Your task to perform on an android device: Open the calendar and show me this week's events? Image 0: 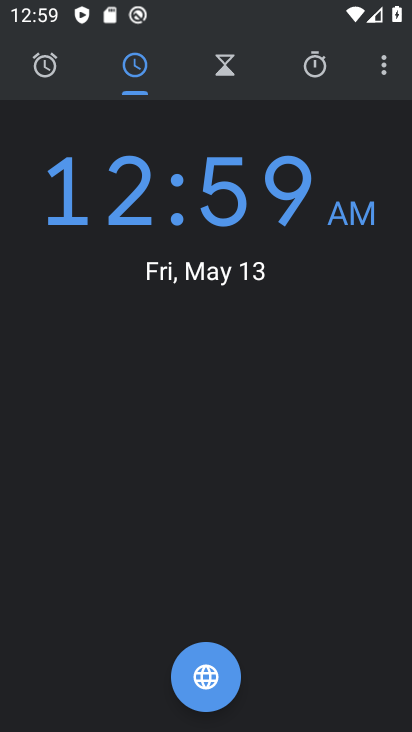
Step 0: press back button
Your task to perform on an android device: Open the calendar and show me this week's events? Image 1: 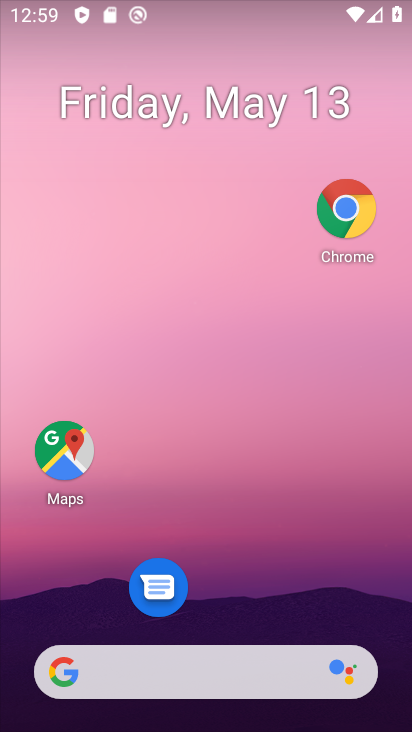
Step 1: drag from (224, 494) to (288, 60)
Your task to perform on an android device: Open the calendar and show me this week's events? Image 2: 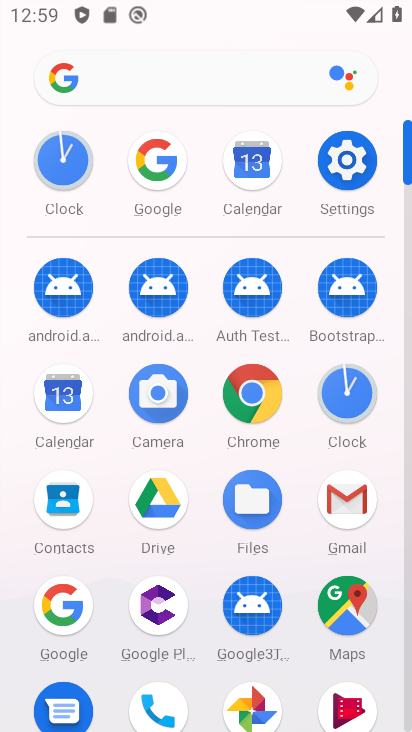
Step 2: click (56, 395)
Your task to perform on an android device: Open the calendar and show me this week's events? Image 3: 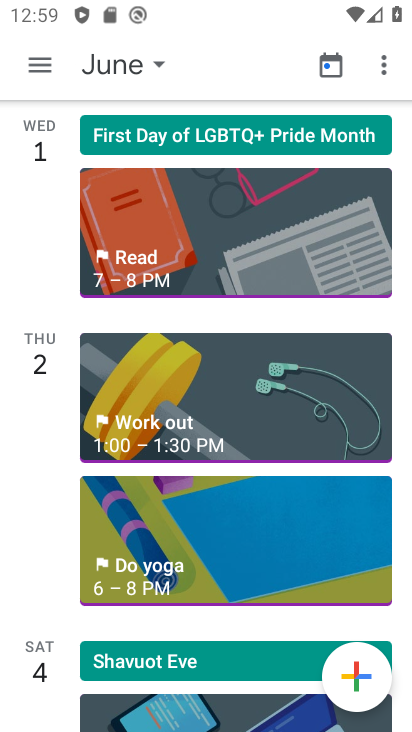
Step 3: click (138, 70)
Your task to perform on an android device: Open the calendar and show me this week's events? Image 4: 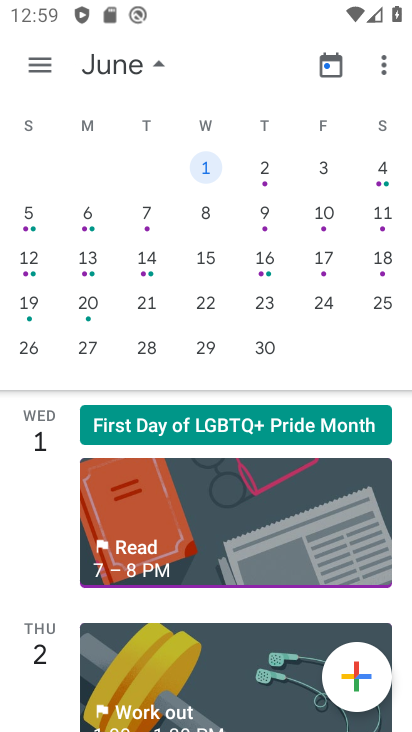
Step 4: drag from (30, 288) to (379, 275)
Your task to perform on an android device: Open the calendar and show me this week's events? Image 5: 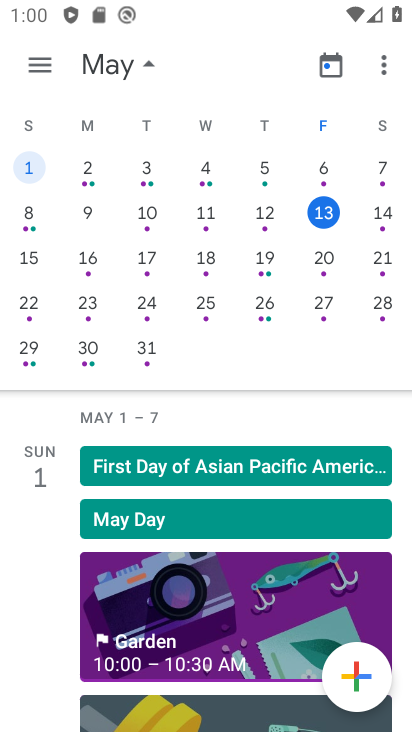
Step 5: drag from (192, 637) to (196, 562)
Your task to perform on an android device: Open the calendar and show me this week's events? Image 6: 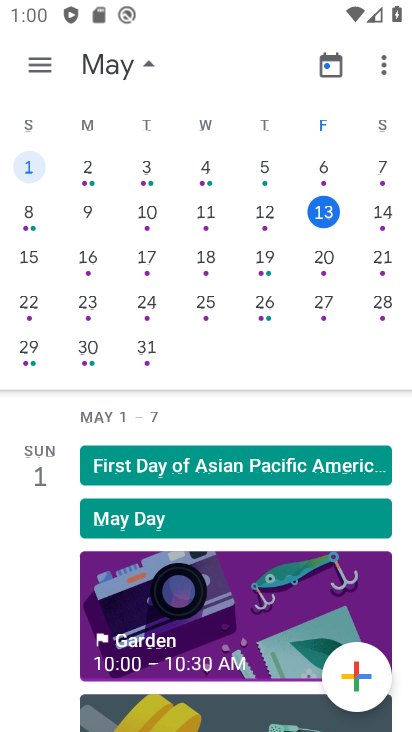
Step 6: click (317, 134)
Your task to perform on an android device: Open the calendar and show me this week's events? Image 7: 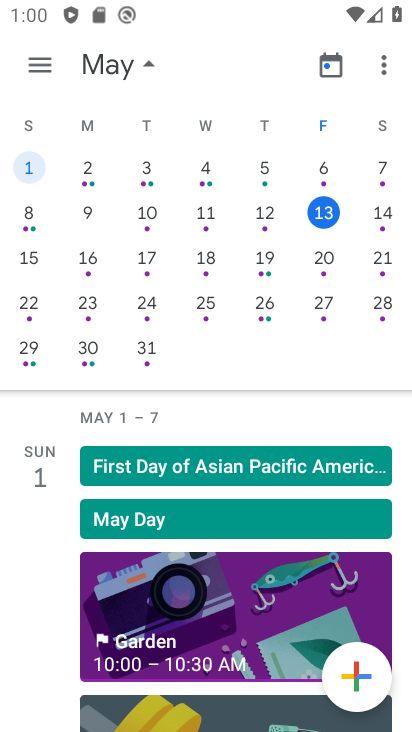
Step 7: click (321, 207)
Your task to perform on an android device: Open the calendar and show me this week's events? Image 8: 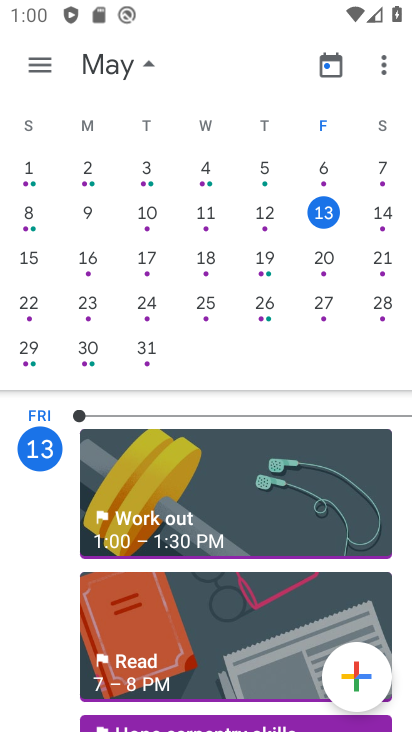
Step 8: drag from (165, 624) to (245, 109)
Your task to perform on an android device: Open the calendar and show me this week's events? Image 9: 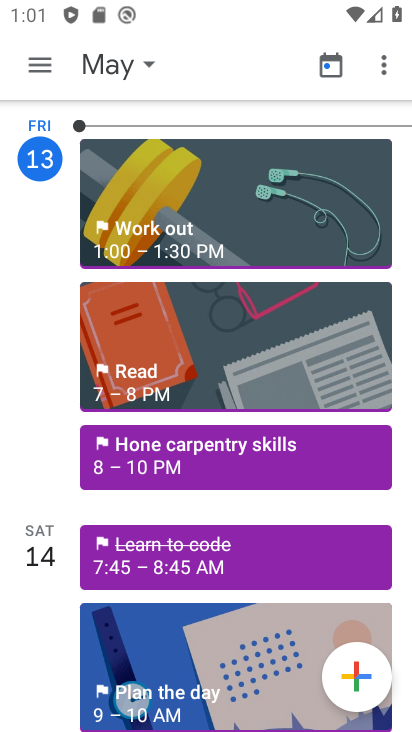
Step 9: drag from (178, 568) to (267, 189)
Your task to perform on an android device: Open the calendar and show me this week's events? Image 10: 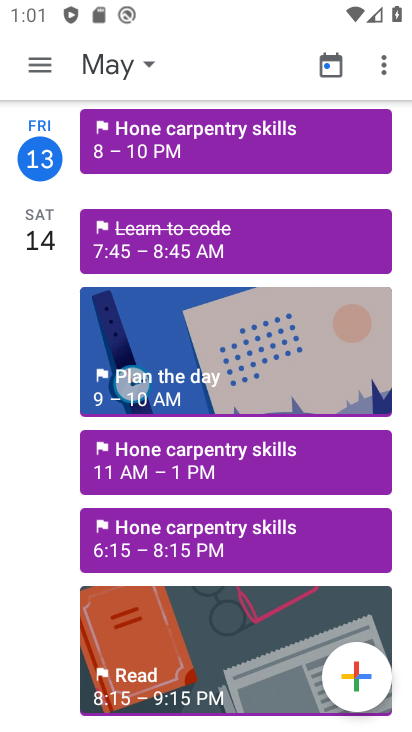
Step 10: drag from (200, 607) to (215, 492)
Your task to perform on an android device: Open the calendar and show me this week's events? Image 11: 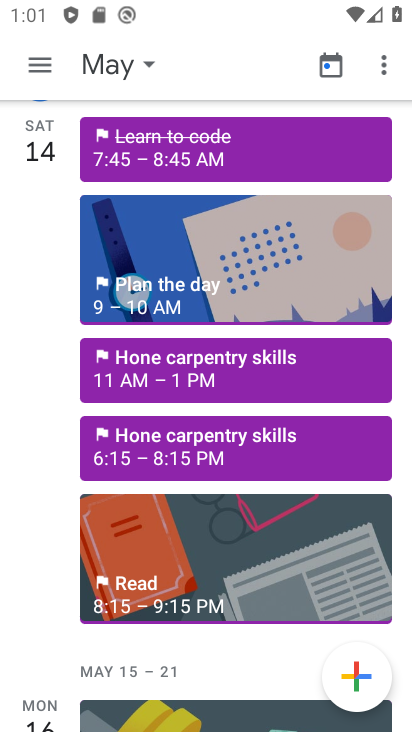
Step 11: click (153, 369)
Your task to perform on an android device: Open the calendar and show me this week's events? Image 12: 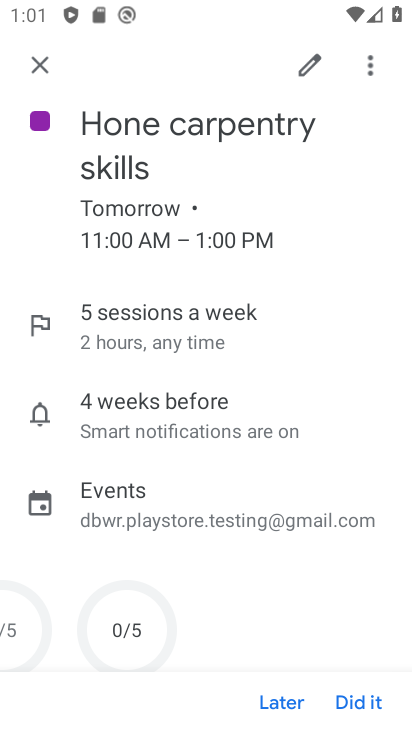
Step 12: task complete